Your task to perform on an android device: Open notification settings Image 0: 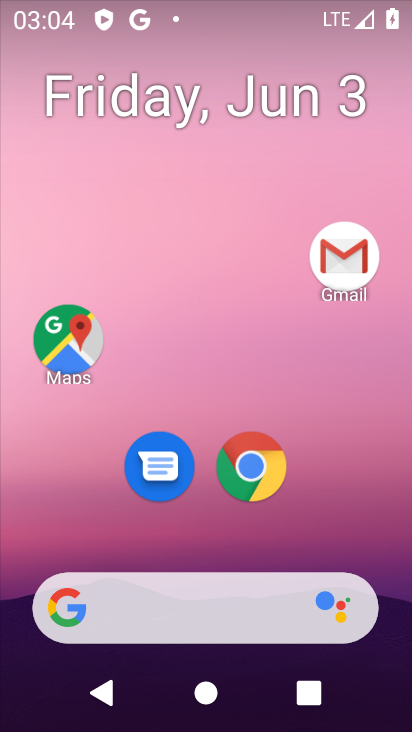
Step 0: drag from (263, 542) to (232, 123)
Your task to perform on an android device: Open notification settings Image 1: 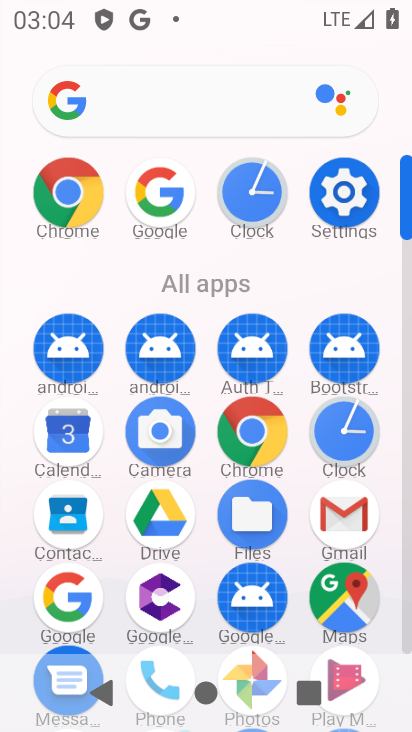
Step 1: click (335, 202)
Your task to perform on an android device: Open notification settings Image 2: 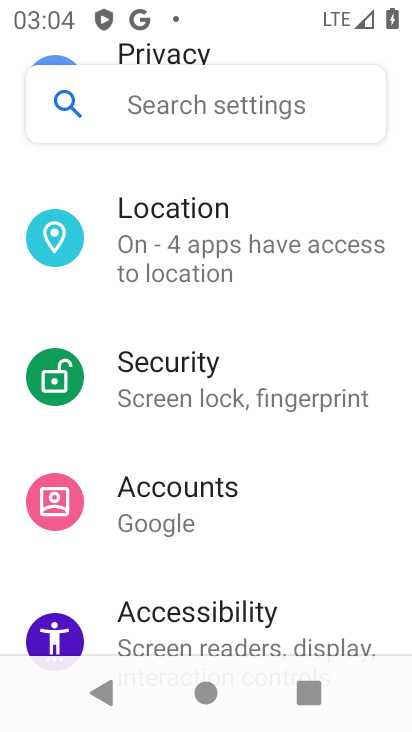
Step 2: drag from (233, 544) to (230, 328)
Your task to perform on an android device: Open notification settings Image 3: 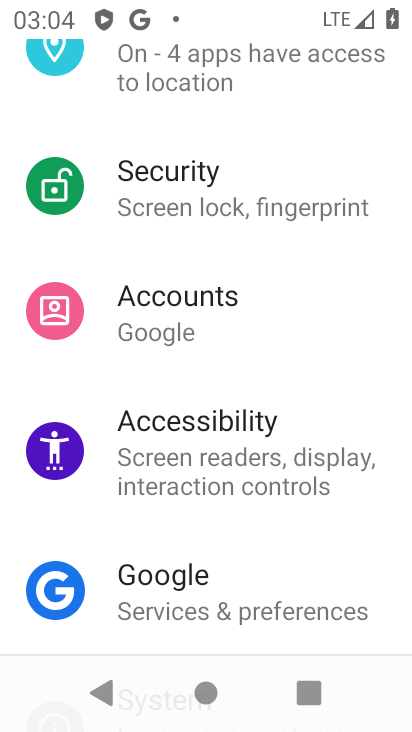
Step 3: drag from (206, 371) to (238, 591)
Your task to perform on an android device: Open notification settings Image 4: 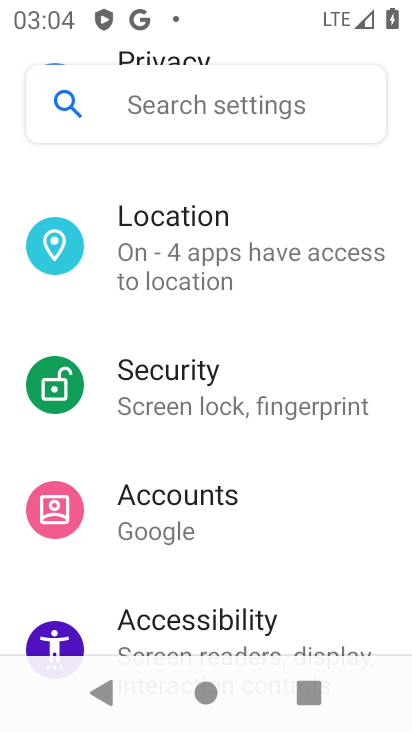
Step 4: drag from (317, 272) to (264, 518)
Your task to perform on an android device: Open notification settings Image 5: 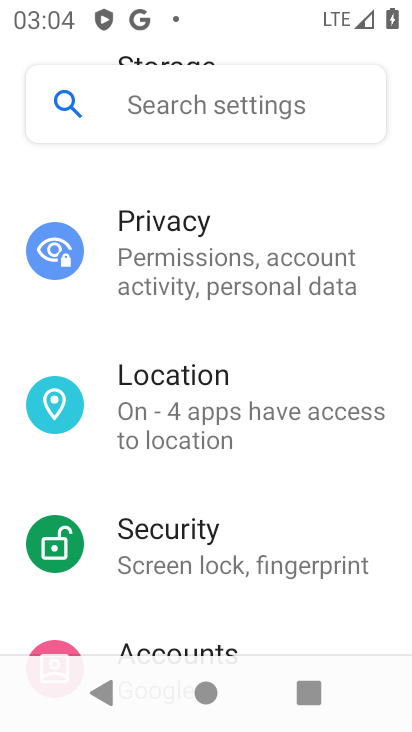
Step 5: drag from (247, 230) to (271, 442)
Your task to perform on an android device: Open notification settings Image 6: 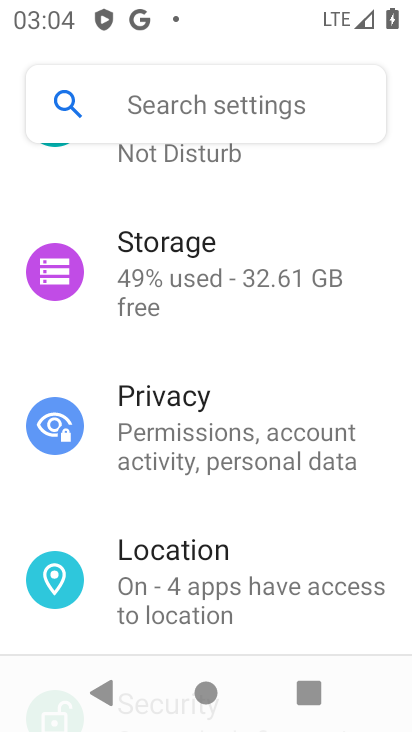
Step 6: drag from (249, 336) to (238, 568)
Your task to perform on an android device: Open notification settings Image 7: 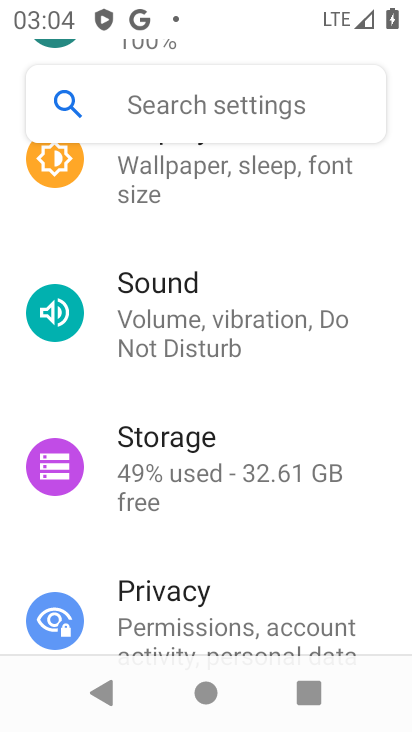
Step 7: drag from (226, 445) to (220, 636)
Your task to perform on an android device: Open notification settings Image 8: 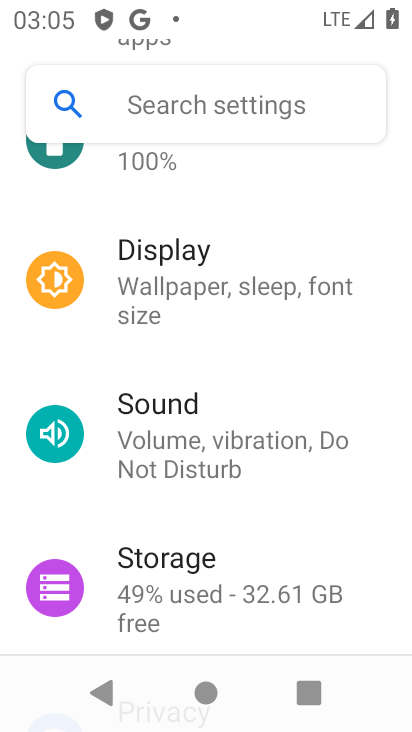
Step 8: drag from (193, 330) to (272, 608)
Your task to perform on an android device: Open notification settings Image 9: 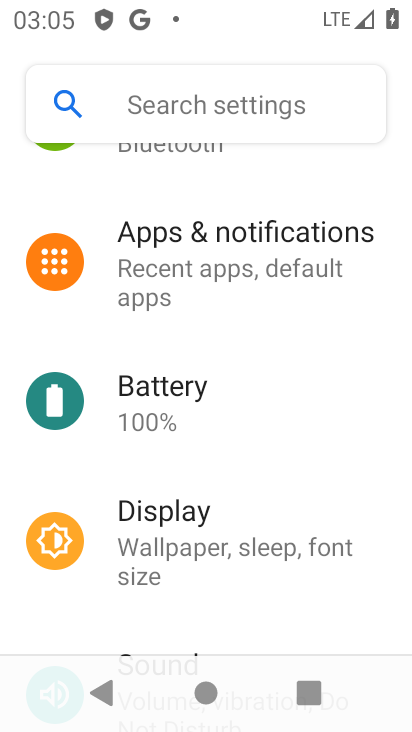
Step 9: click (158, 301)
Your task to perform on an android device: Open notification settings Image 10: 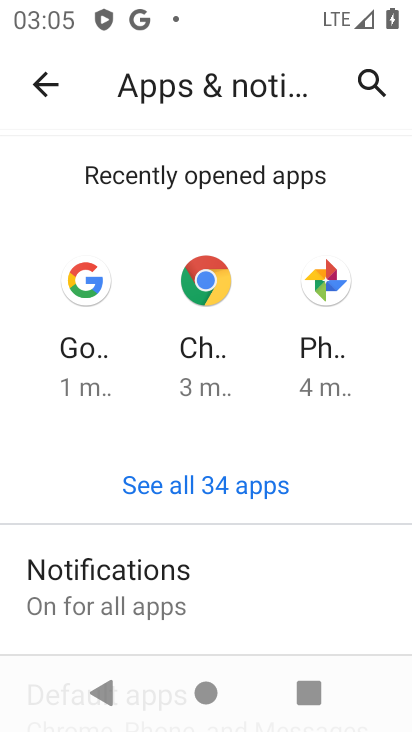
Step 10: task complete